Your task to perform on an android device: open a new tab in the chrome app Image 0: 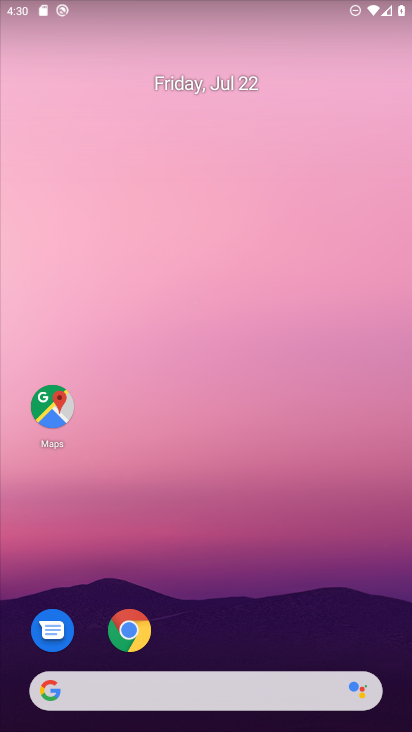
Step 0: click (127, 634)
Your task to perform on an android device: open a new tab in the chrome app Image 1: 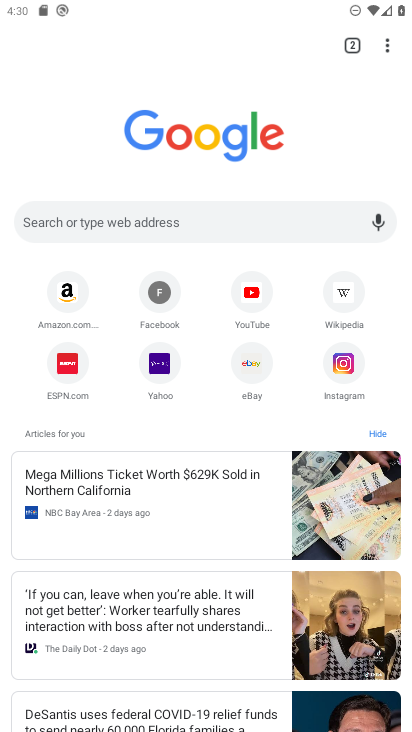
Step 1: click (385, 48)
Your task to perform on an android device: open a new tab in the chrome app Image 2: 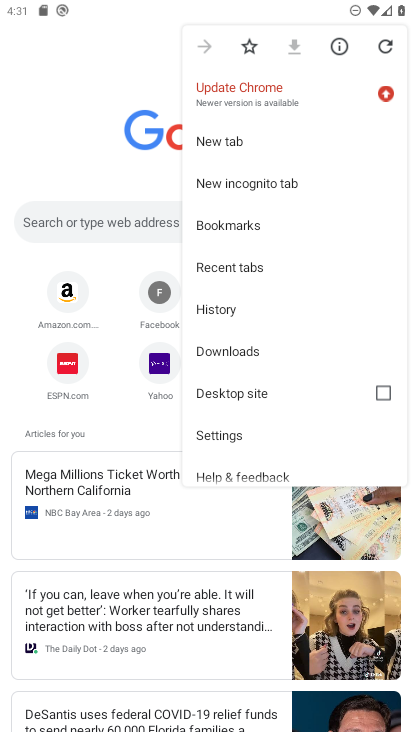
Step 2: click (240, 146)
Your task to perform on an android device: open a new tab in the chrome app Image 3: 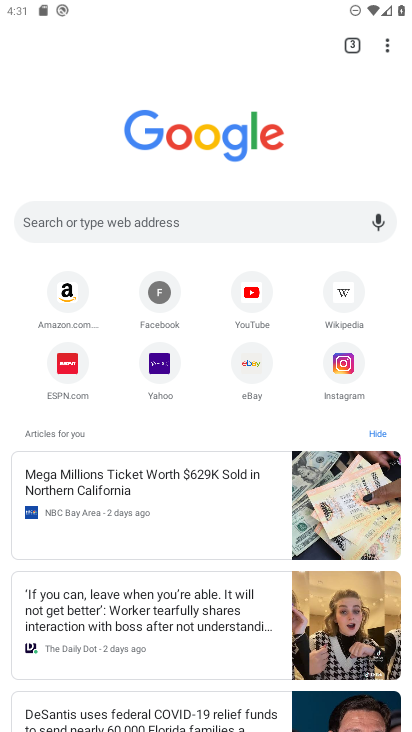
Step 3: task complete